Your task to perform on an android device: What is the news today? Image 0: 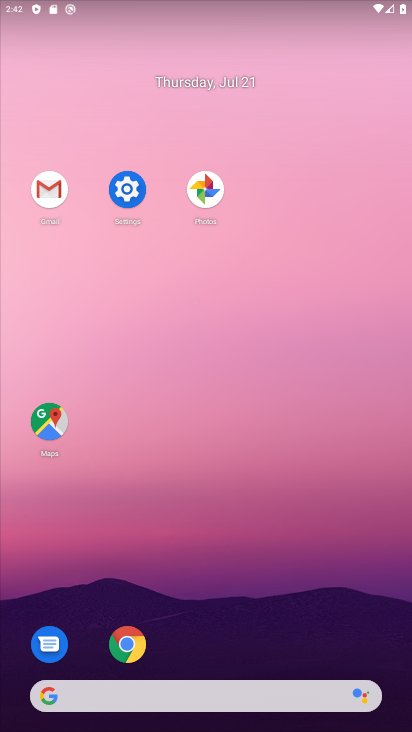
Step 0: drag from (236, 620) to (300, 257)
Your task to perform on an android device: What is the news today? Image 1: 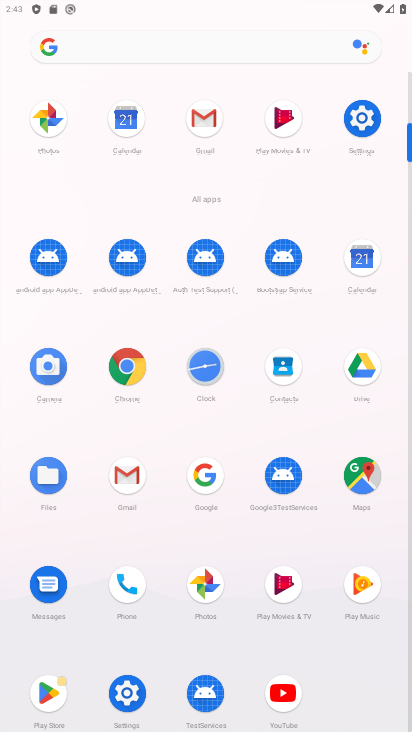
Step 1: click (194, 476)
Your task to perform on an android device: What is the news today? Image 2: 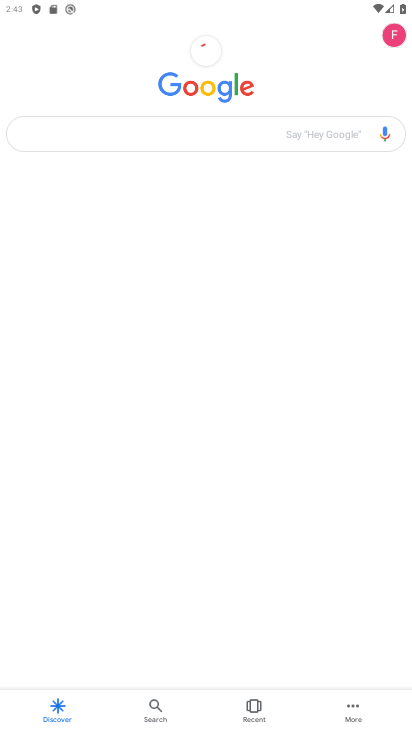
Step 2: task complete